Your task to perform on an android device: turn on javascript in the chrome app Image 0: 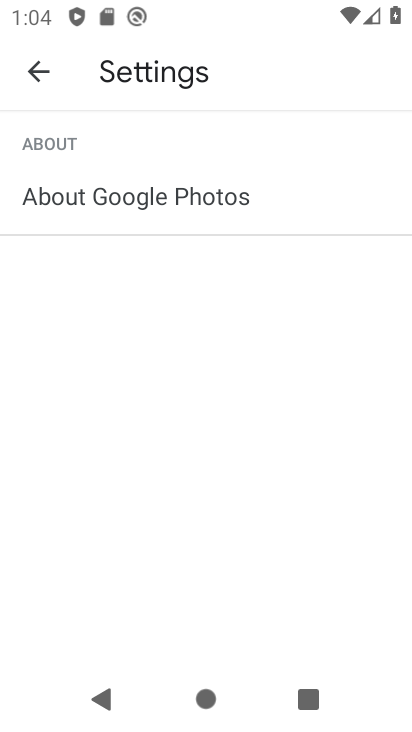
Step 0: press home button
Your task to perform on an android device: turn on javascript in the chrome app Image 1: 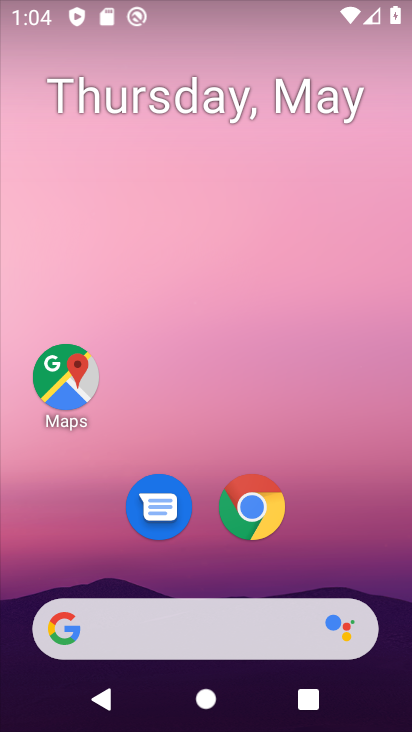
Step 1: click (266, 508)
Your task to perform on an android device: turn on javascript in the chrome app Image 2: 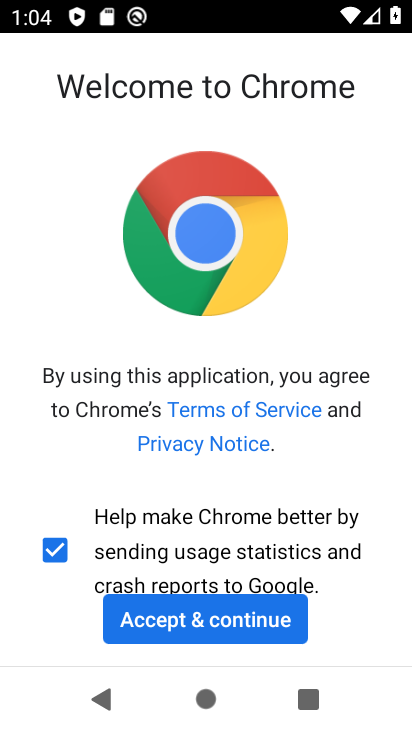
Step 2: click (228, 621)
Your task to perform on an android device: turn on javascript in the chrome app Image 3: 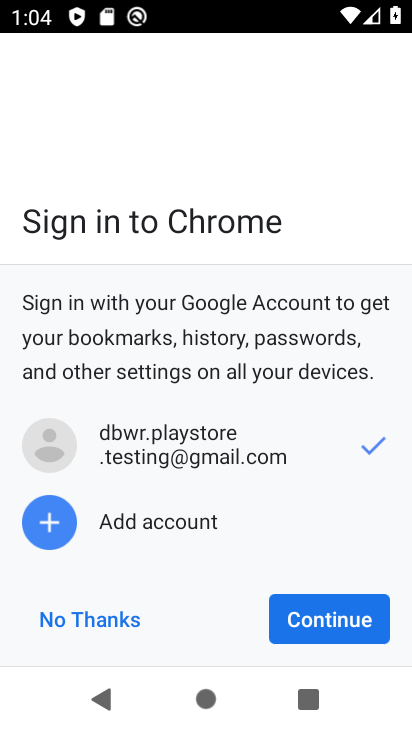
Step 3: click (296, 614)
Your task to perform on an android device: turn on javascript in the chrome app Image 4: 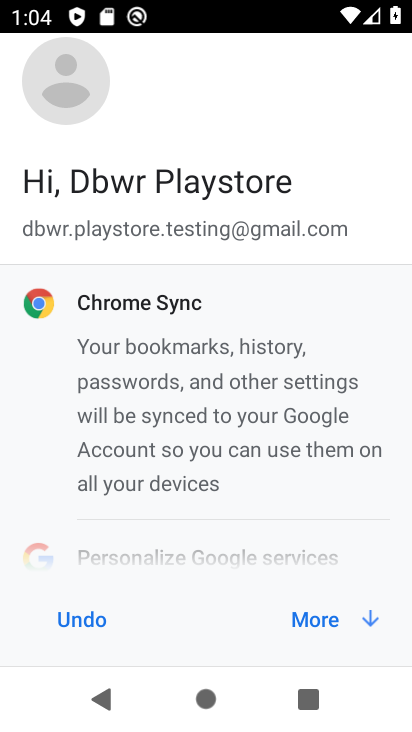
Step 4: click (298, 613)
Your task to perform on an android device: turn on javascript in the chrome app Image 5: 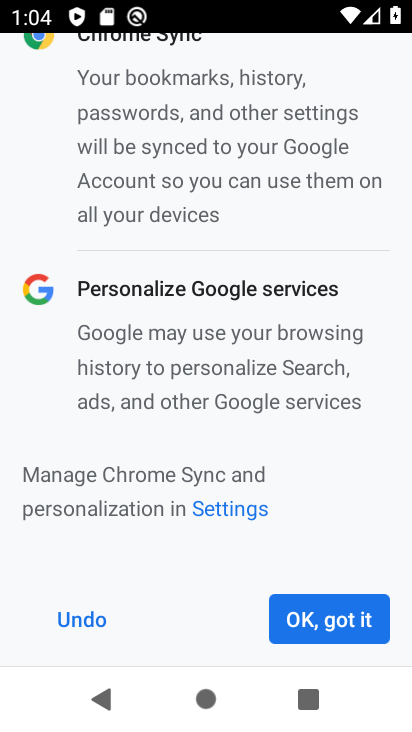
Step 5: click (293, 608)
Your task to perform on an android device: turn on javascript in the chrome app Image 6: 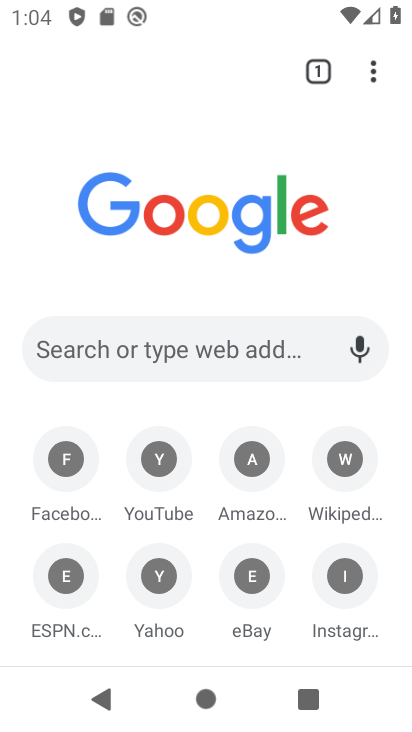
Step 6: click (372, 60)
Your task to perform on an android device: turn on javascript in the chrome app Image 7: 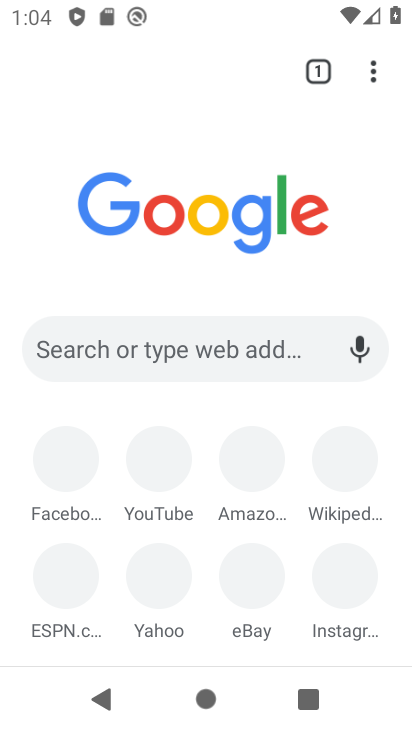
Step 7: click (372, 74)
Your task to perform on an android device: turn on javascript in the chrome app Image 8: 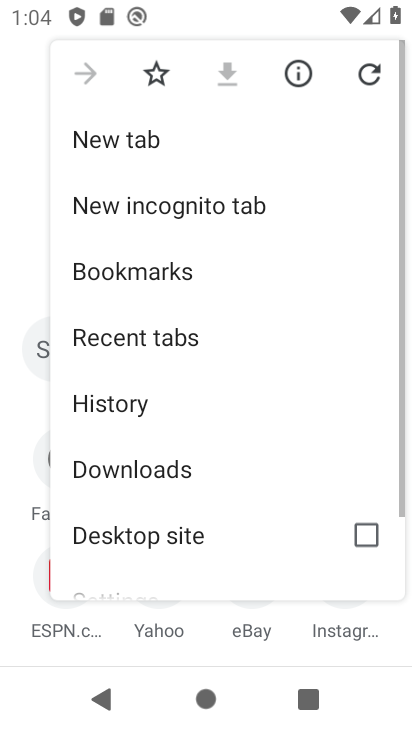
Step 8: drag from (210, 518) to (292, 165)
Your task to perform on an android device: turn on javascript in the chrome app Image 9: 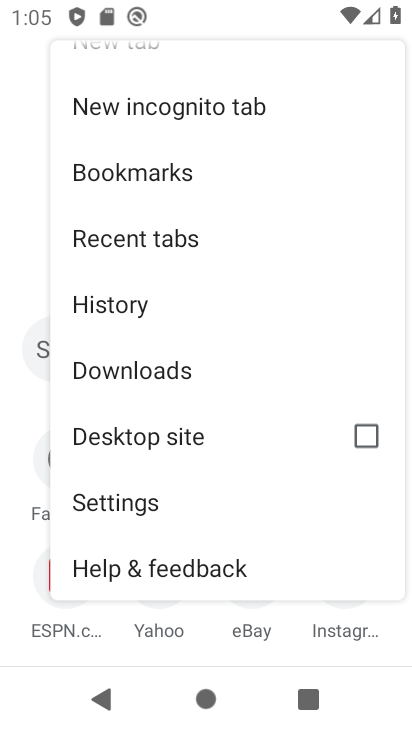
Step 9: click (128, 490)
Your task to perform on an android device: turn on javascript in the chrome app Image 10: 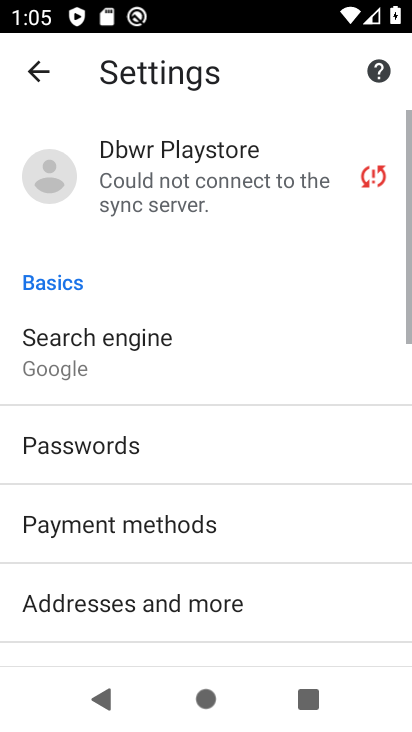
Step 10: drag from (172, 581) to (301, 140)
Your task to perform on an android device: turn on javascript in the chrome app Image 11: 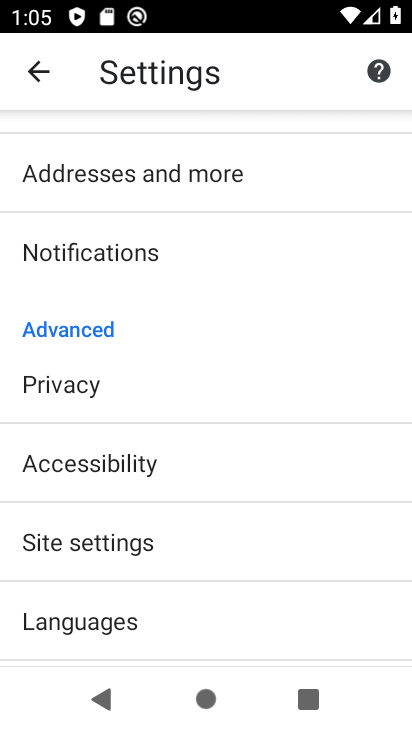
Step 11: drag from (164, 572) to (264, 191)
Your task to perform on an android device: turn on javascript in the chrome app Image 12: 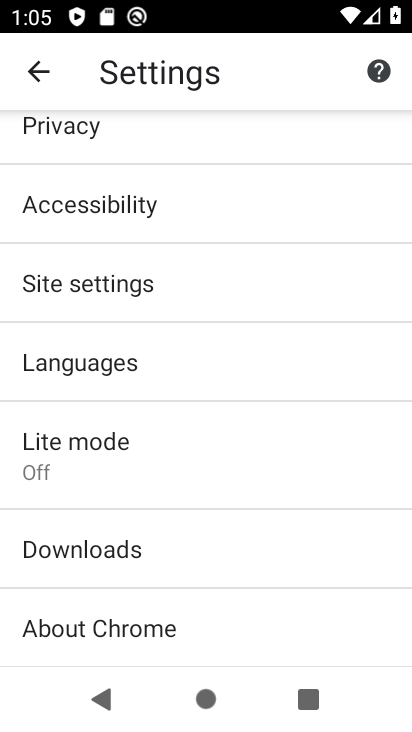
Step 12: drag from (142, 586) to (212, 320)
Your task to perform on an android device: turn on javascript in the chrome app Image 13: 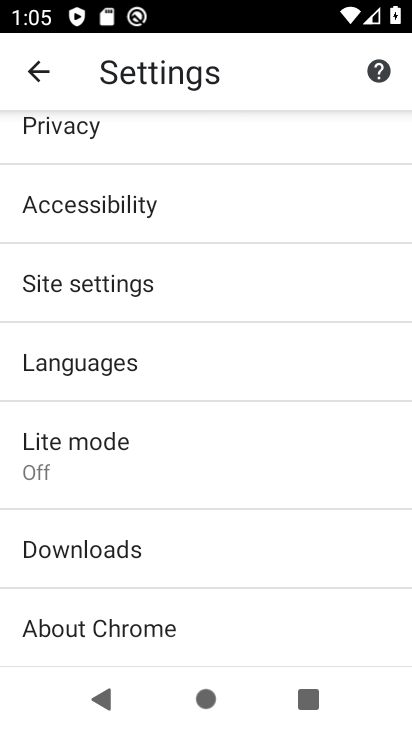
Step 13: click (208, 284)
Your task to perform on an android device: turn on javascript in the chrome app Image 14: 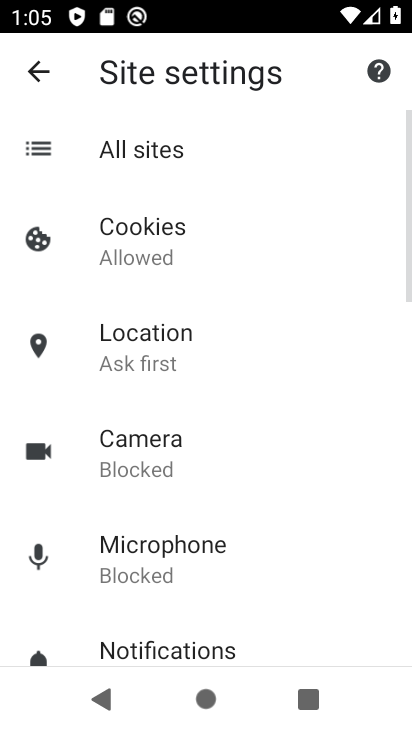
Step 14: drag from (178, 586) to (230, 258)
Your task to perform on an android device: turn on javascript in the chrome app Image 15: 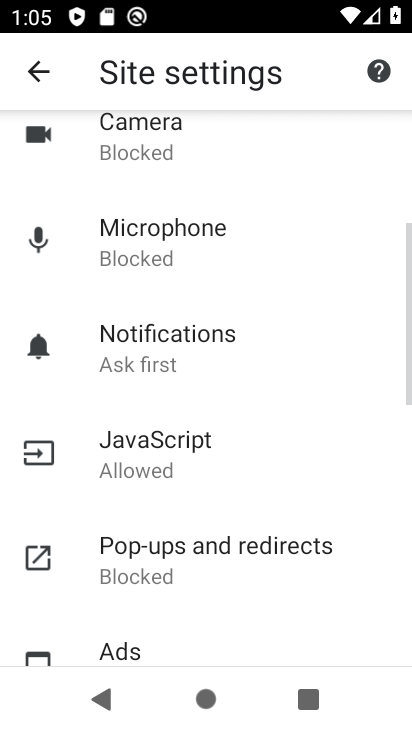
Step 15: click (141, 447)
Your task to perform on an android device: turn on javascript in the chrome app Image 16: 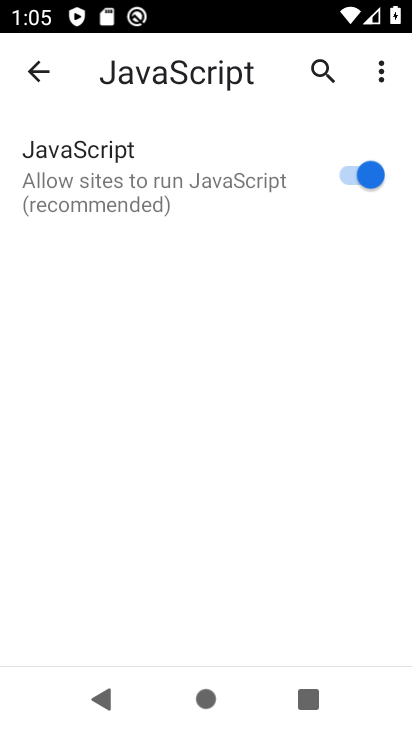
Step 16: task complete